Your task to perform on an android device: manage bookmarks in the chrome app Image 0: 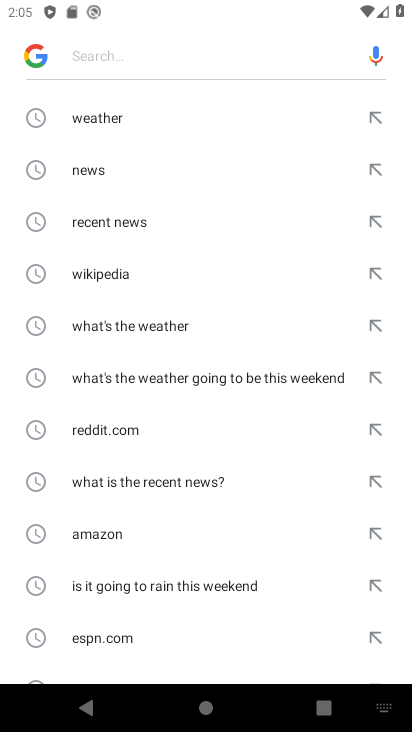
Step 0: press home button
Your task to perform on an android device: manage bookmarks in the chrome app Image 1: 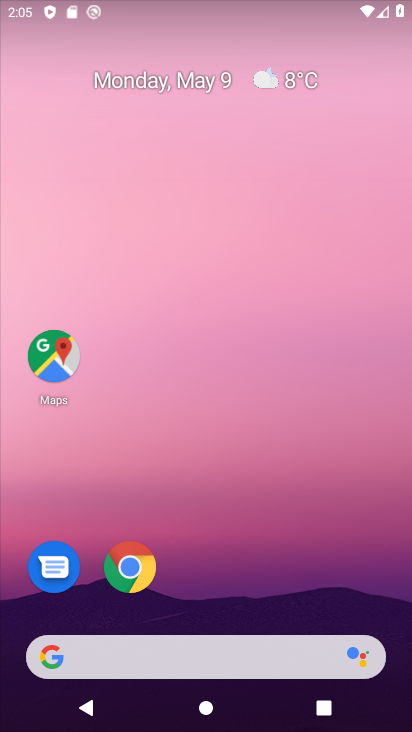
Step 1: drag from (206, 461) to (224, 254)
Your task to perform on an android device: manage bookmarks in the chrome app Image 2: 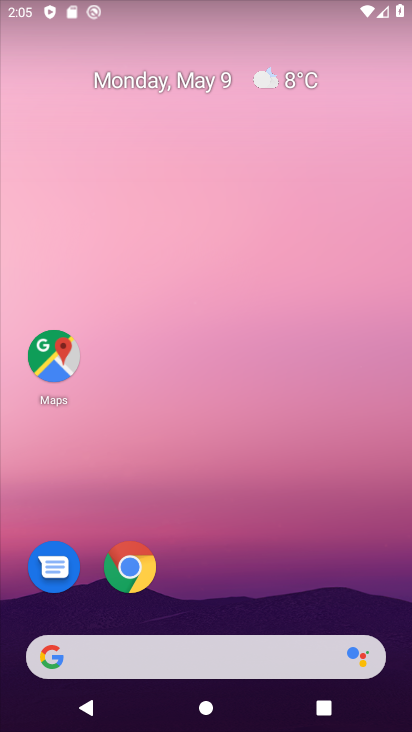
Step 2: drag from (232, 618) to (273, 187)
Your task to perform on an android device: manage bookmarks in the chrome app Image 3: 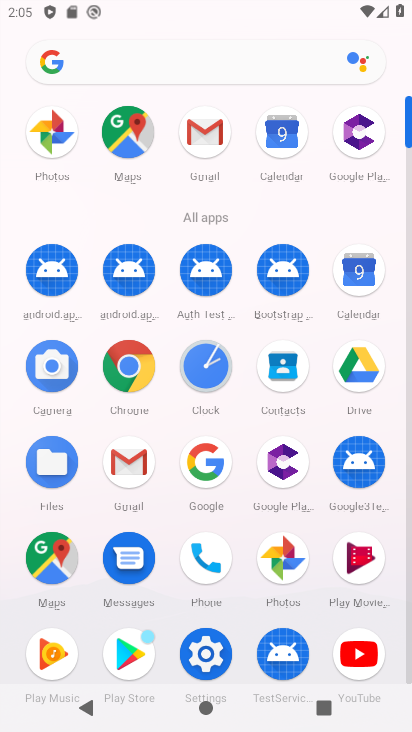
Step 3: click (116, 360)
Your task to perform on an android device: manage bookmarks in the chrome app Image 4: 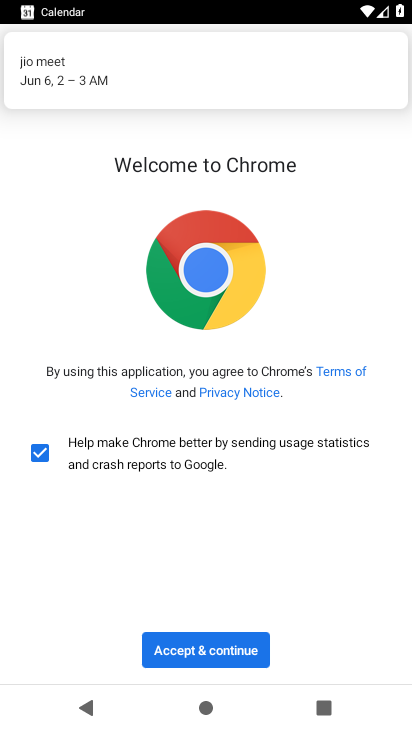
Step 4: click (211, 648)
Your task to perform on an android device: manage bookmarks in the chrome app Image 5: 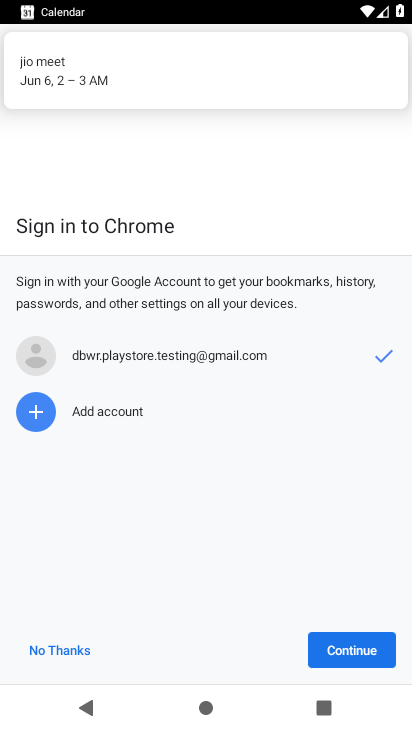
Step 5: click (337, 643)
Your task to perform on an android device: manage bookmarks in the chrome app Image 6: 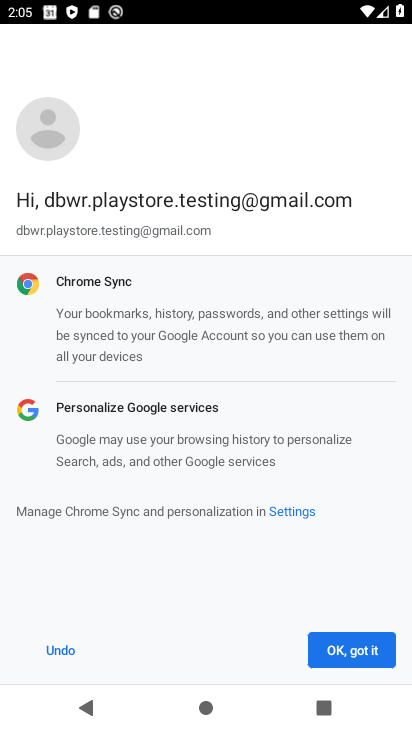
Step 6: click (339, 632)
Your task to perform on an android device: manage bookmarks in the chrome app Image 7: 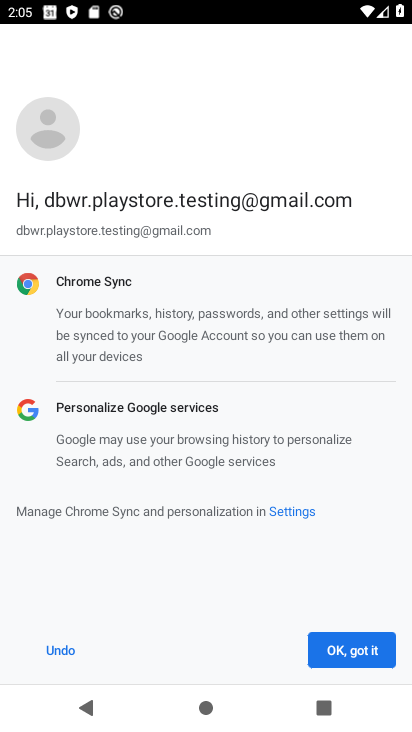
Step 7: click (343, 647)
Your task to perform on an android device: manage bookmarks in the chrome app Image 8: 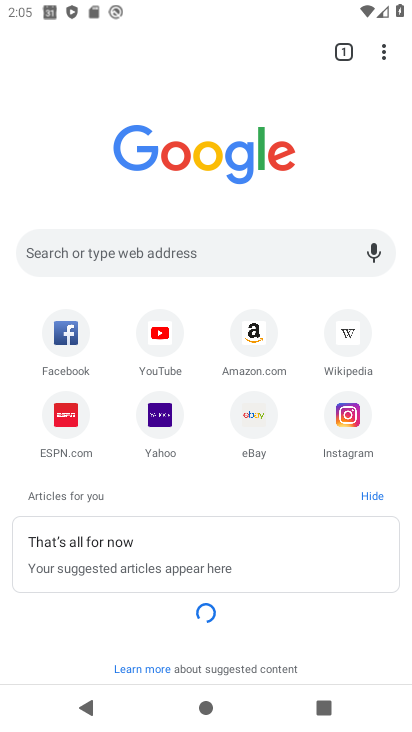
Step 8: click (372, 49)
Your task to perform on an android device: manage bookmarks in the chrome app Image 9: 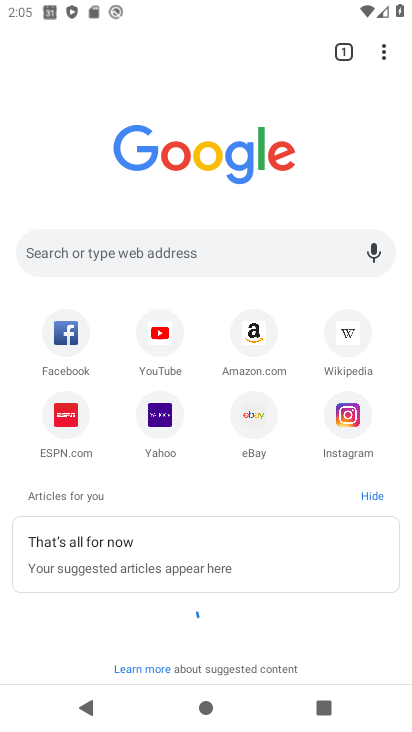
Step 9: click (374, 46)
Your task to perform on an android device: manage bookmarks in the chrome app Image 10: 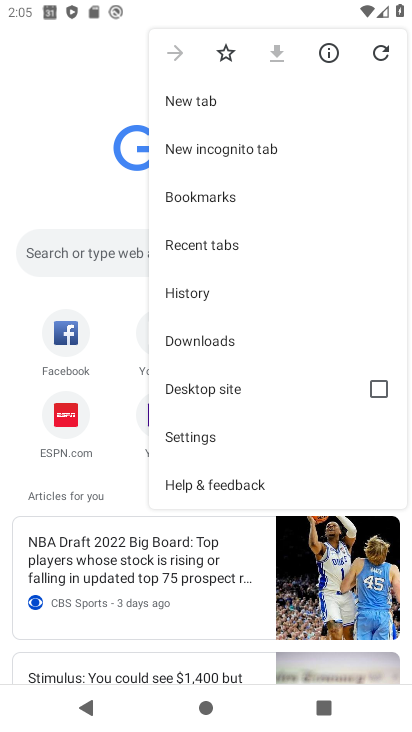
Step 10: click (200, 435)
Your task to perform on an android device: manage bookmarks in the chrome app Image 11: 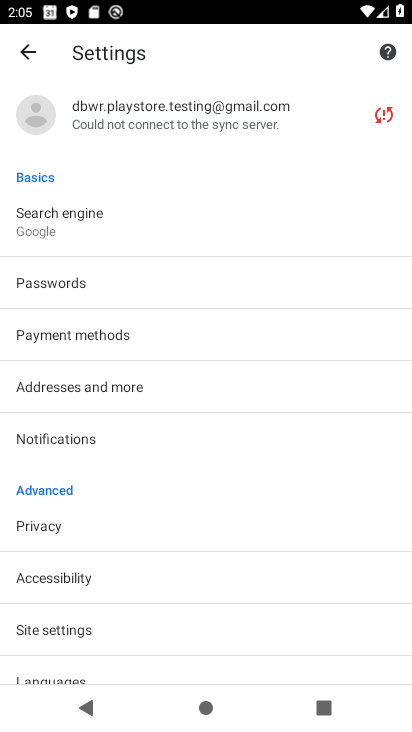
Step 11: drag from (139, 590) to (169, 413)
Your task to perform on an android device: manage bookmarks in the chrome app Image 12: 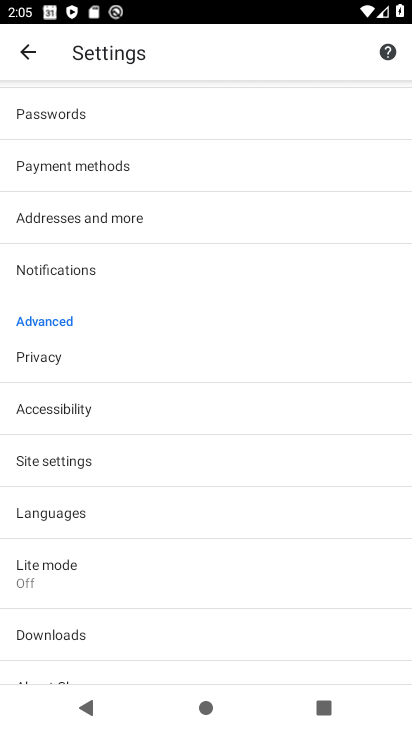
Step 12: press back button
Your task to perform on an android device: manage bookmarks in the chrome app Image 13: 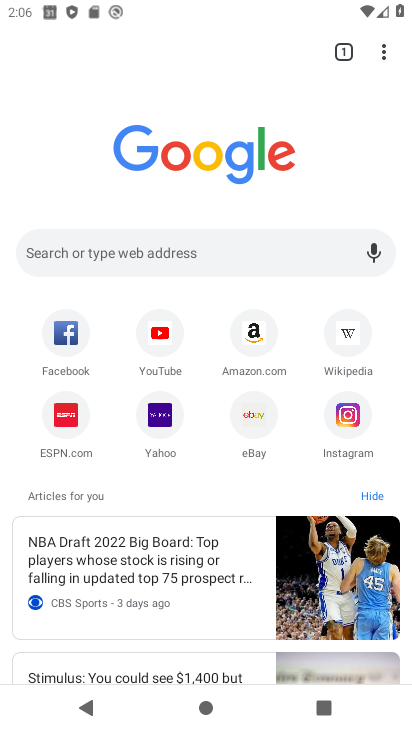
Step 13: click (367, 66)
Your task to perform on an android device: manage bookmarks in the chrome app Image 14: 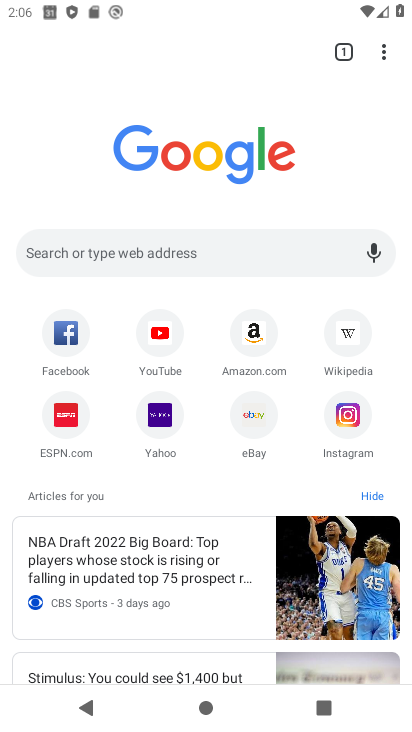
Step 14: click (377, 43)
Your task to perform on an android device: manage bookmarks in the chrome app Image 15: 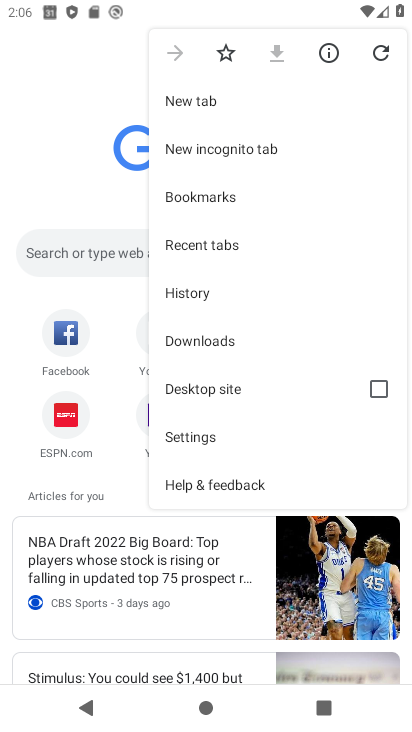
Step 15: click (192, 202)
Your task to perform on an android device: manage bookmarks in the chrome app Image 16: 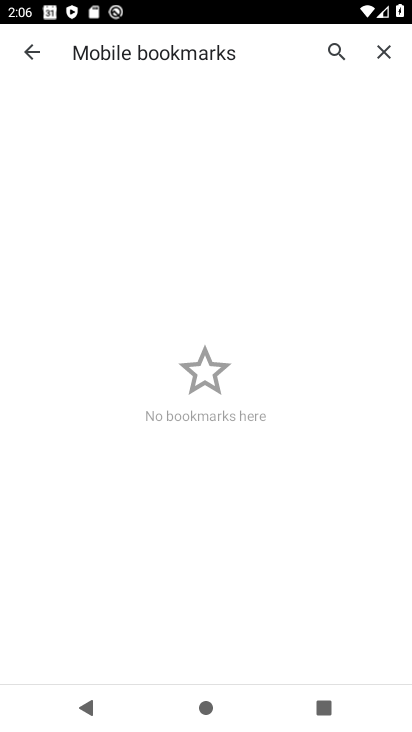
Step 16: task complete